Your task to perform on an android device: Go to Yahoo.com Image 0: 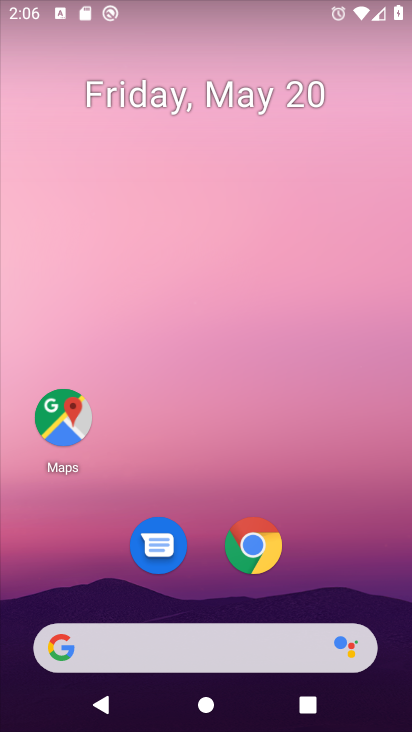
Step 0: drag from (333, 577) to (332, 3)
Your task to perform on an android device: Go to Yahoo.com Image 1: 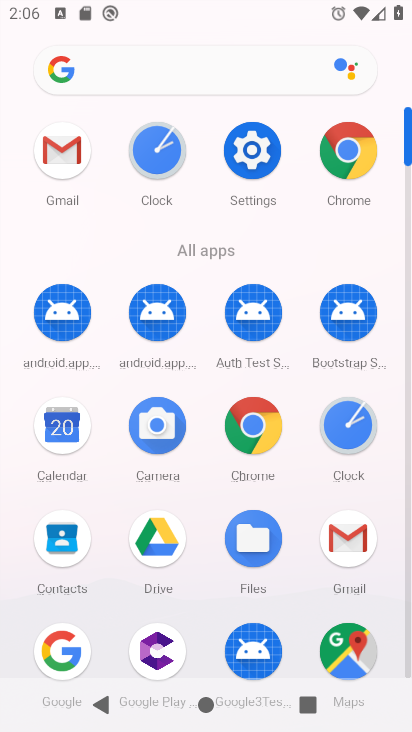
Step 1: click (265, 432)
Your task to perform on an android device: Go to Yahoo.com Image 2: 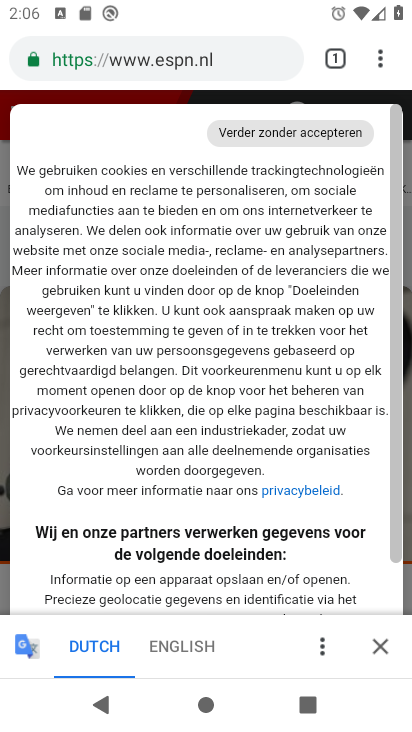
Step 2: drag from (378, 57) to (201, 119)
Your task to perform on an android device: Go to Yahoo.com Image 3: 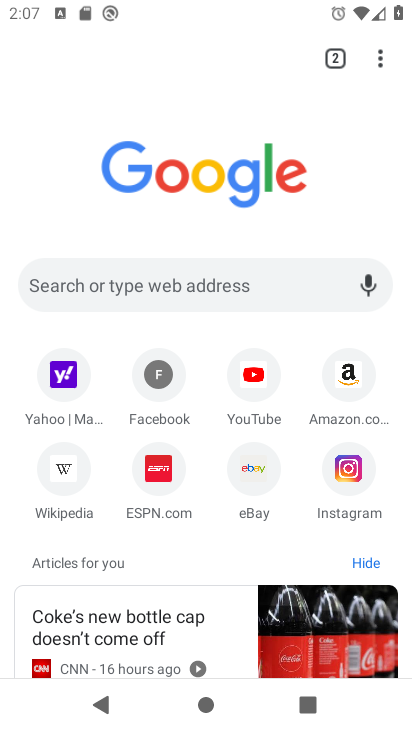
Step 3: click (53, 376)
Your task to perform on an android device: Go to Yahoo.com Image 4: 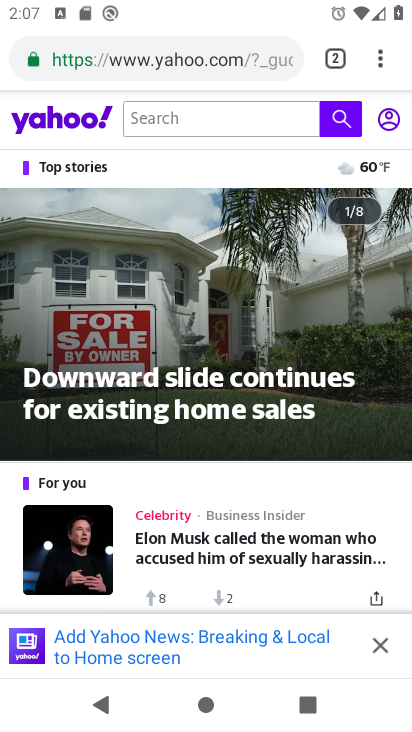
Step 4: task complete